Your task to perform on an android device: read, delete, or share a saved page in the chrome app Image 0: 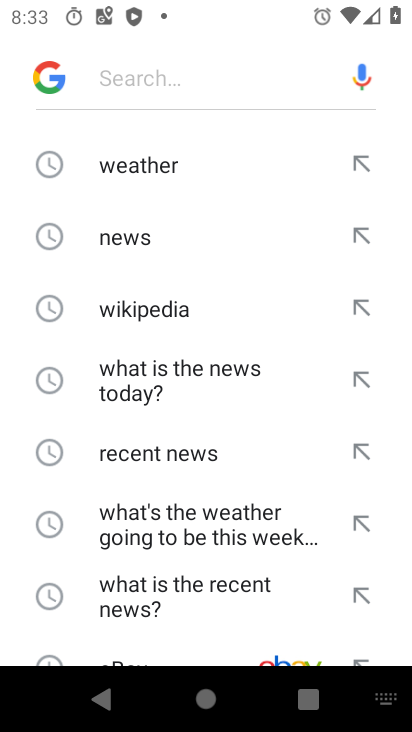
Step 0: press home button
Your task to perform on an android device: read, delete, or share a saved page in the chrome app Image 1: 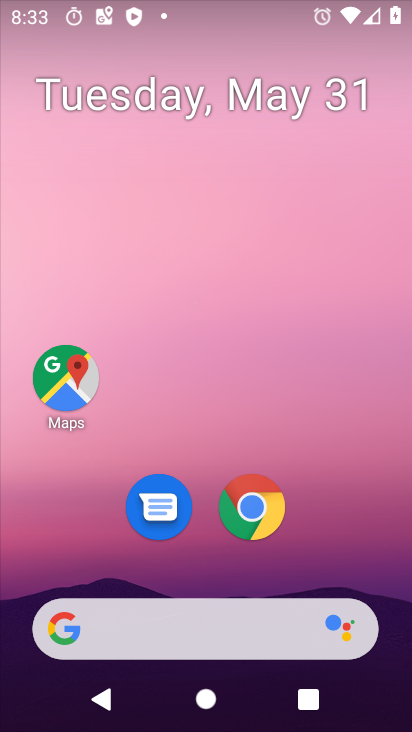
Step 1: click (263, 509)
Your task to perform on an android device: read, delete, or share a saved page in the chrome app Image 2: 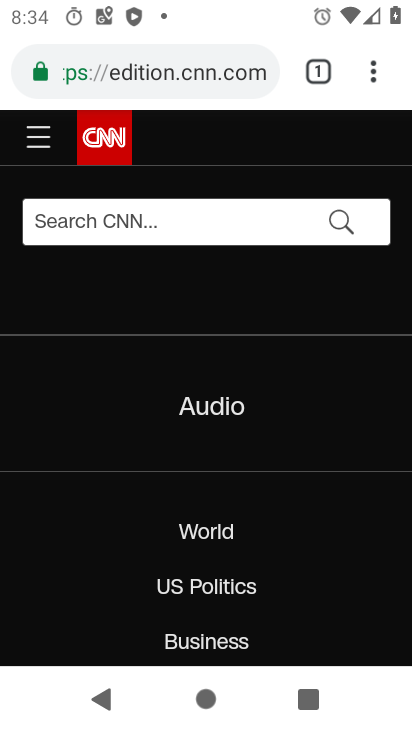
Step 2: click (369, 70)
Your task to perform on an android device: read, delete, or share a saved page in the chrome app Image 3: 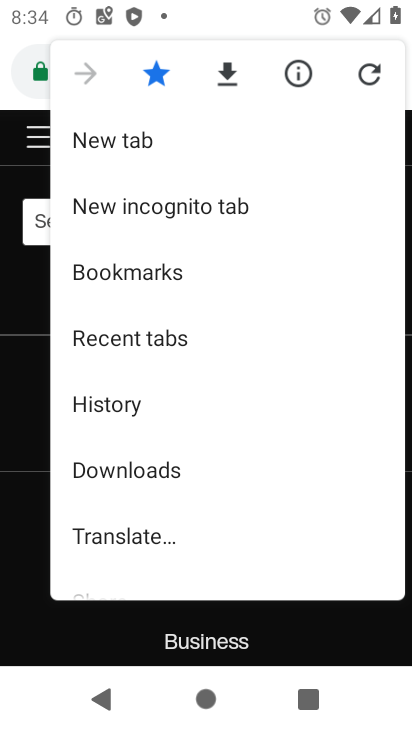
Step 3: click (101, 470)
Your task to perform on an android device: read, delete, or share a saved page in the chrome app Image 4: 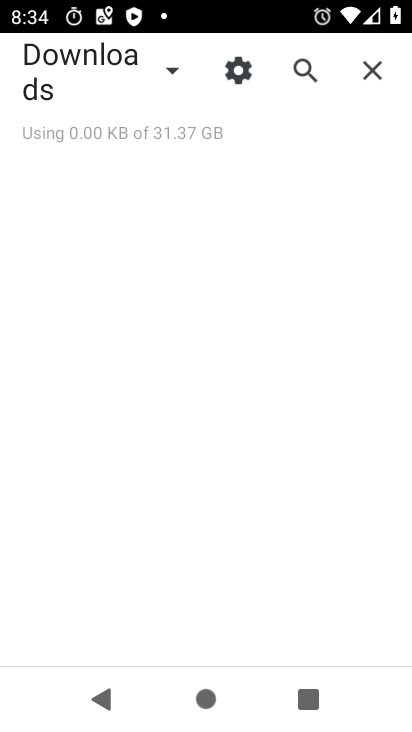
Step 4: click (174, 69)
Your task to perform on an android device: read, delete, or share a saved page in the chrome app Image 5: 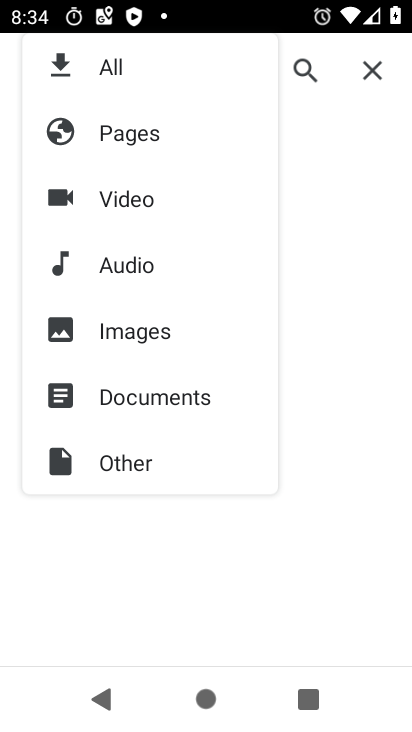
Step 5: click (95, 149)
Your task to perform on an android device: read, delete, or share a saved page in the chrome app Image 6: 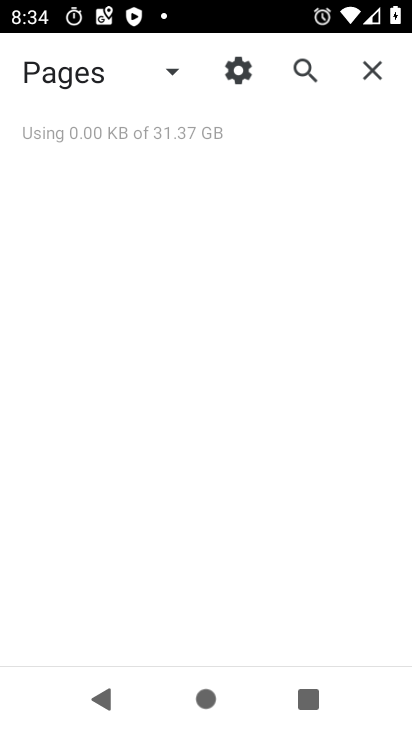
Step 6: task complete